Your task to perform on an android device: Go to accessibility settings Image 0: 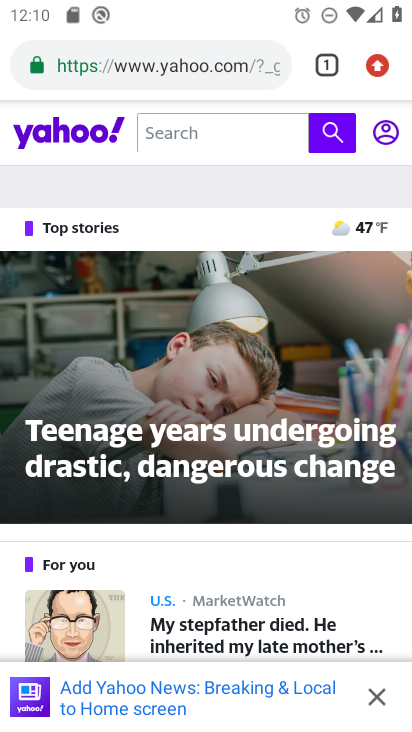
Step 0: press home button
Your task to perform on an android device: Go to accessibility settings Image 1: 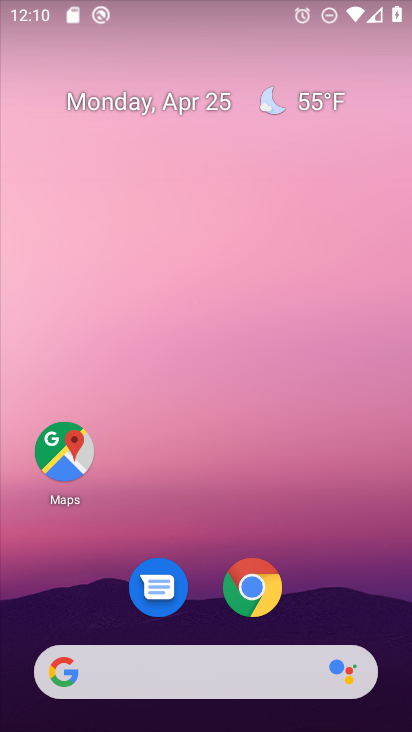
Step 1: drag from (354, 574) to (226, 106)
Your task to perform on an android device: Go to accessibility settings Image 2: 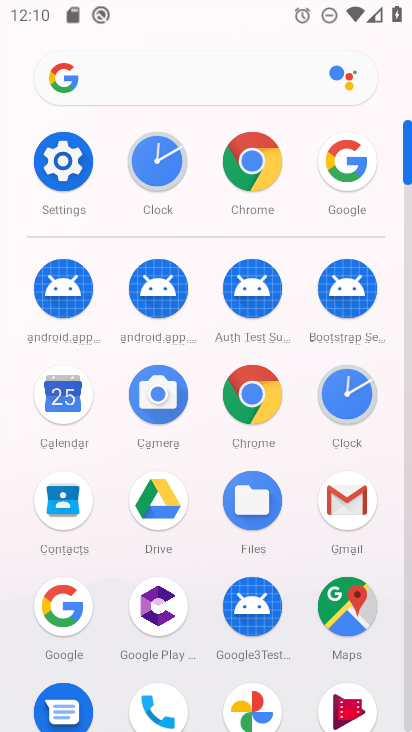
Step 2: click (58, 158)
Your task to perform on an android device: Go to accessibility settings Image 3: 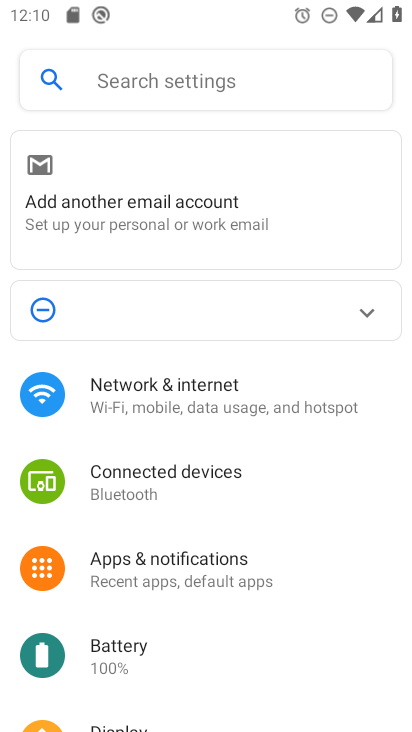
Step 3: drag from (258, 627) to (253, 130)
Your task to perform on an android device: Go to accessibility settings Image 4: 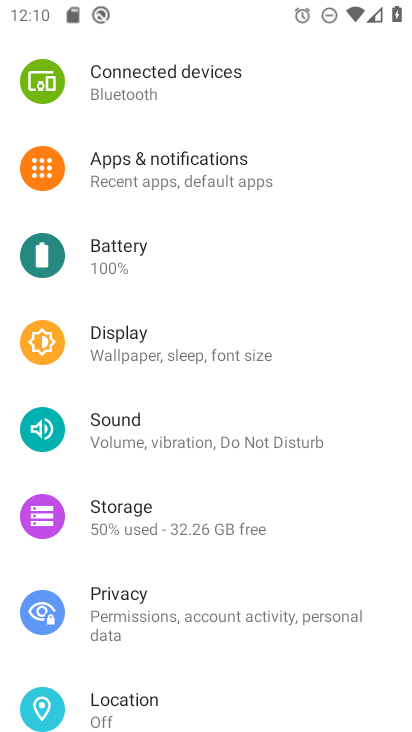
Step 4: drag from (230, 543) to (244, 153)
Your task to perform on an android device: Go to accessibility settings Image 5: 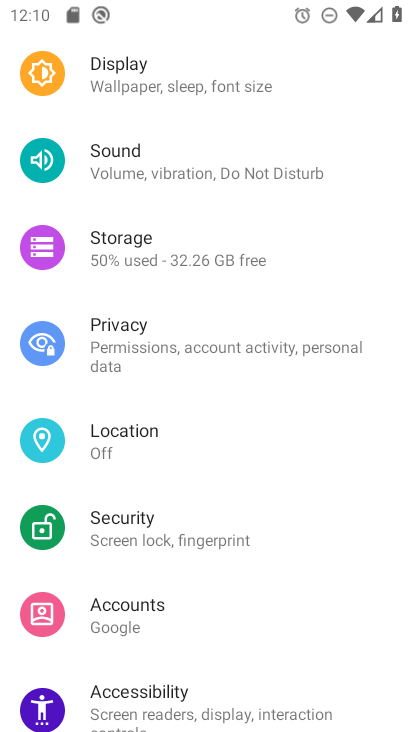
Step 5: drag from (217, 618) to (225, 284)
Your task to perform on an android device: Go to accessibility settings Image 6: 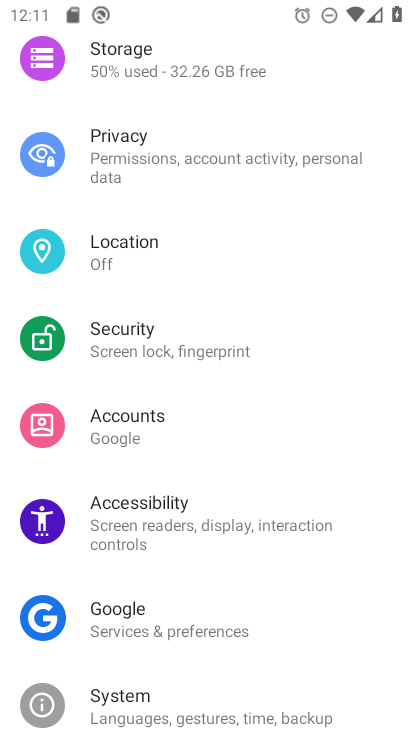
Step 6: drag from (214, 593) to (237, 203)
Your task to perform on an android device: Go to accessibility settings Image 7: 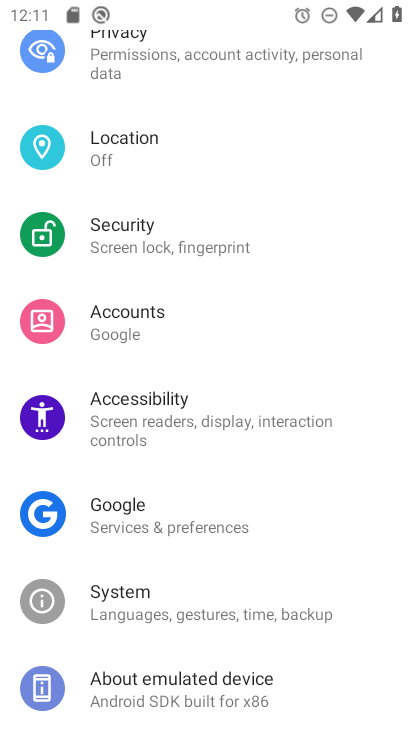
Step 7: click (210, 408)
Your task to perform on an android device: Go to accessibility settings Image 8: 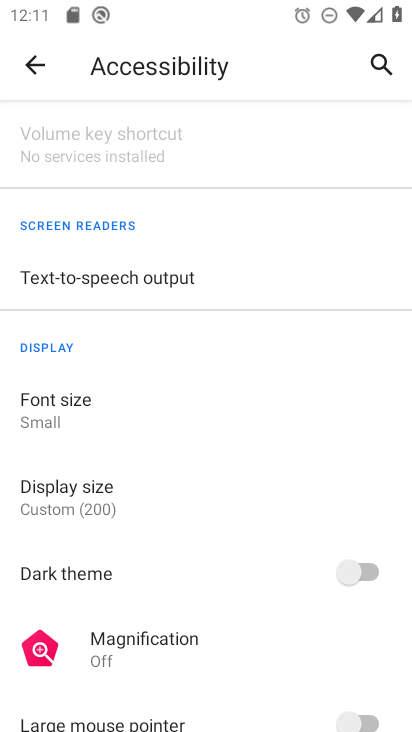
Step 8: task complete